Your task to perform on an android device: choose inbox layout in the gmail app Image 0: 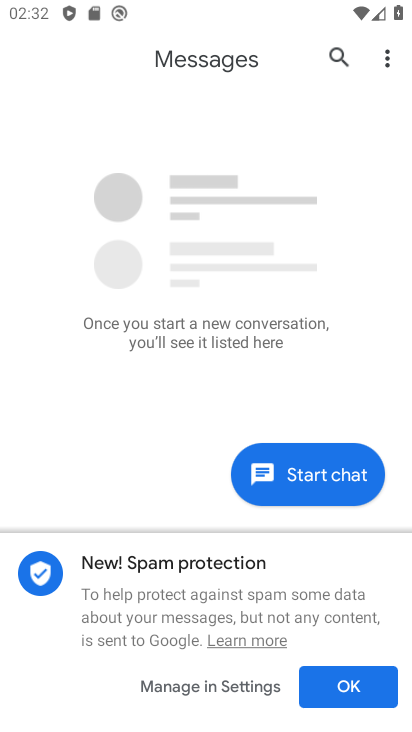
Step 0: press home button
Your task to perform on an android device: choose inbox layout in the gmail app Image 1: 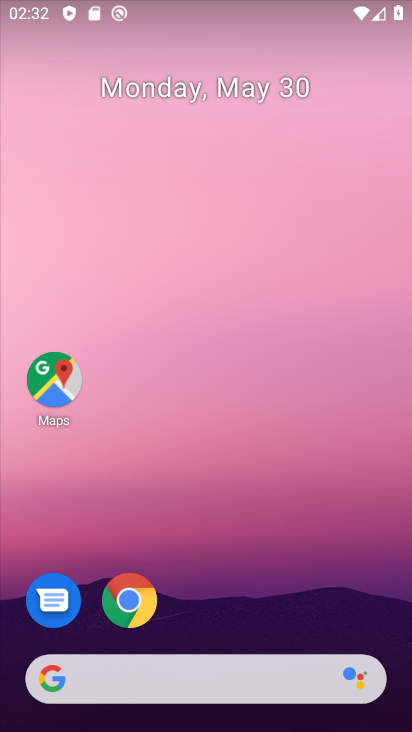
Step 1: drag from (219, 559) to (261, 58)
Your task to perform on an android device: choose inbox layout in the gmail app Image 2: 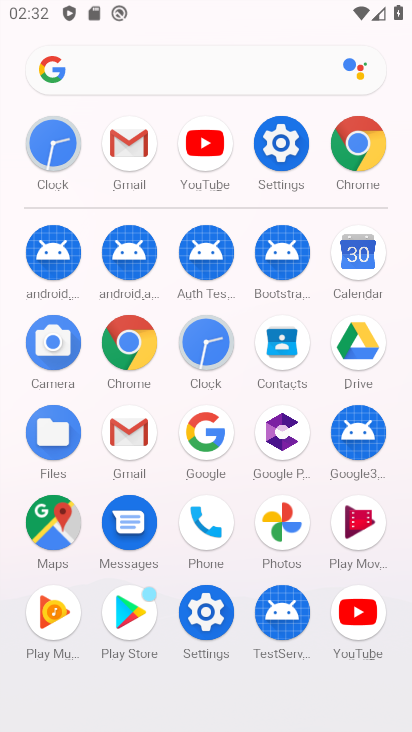
Step 2: click (129, 433)
Your task to perform on an android device: choose inbox layout in the gmail app Image 3: 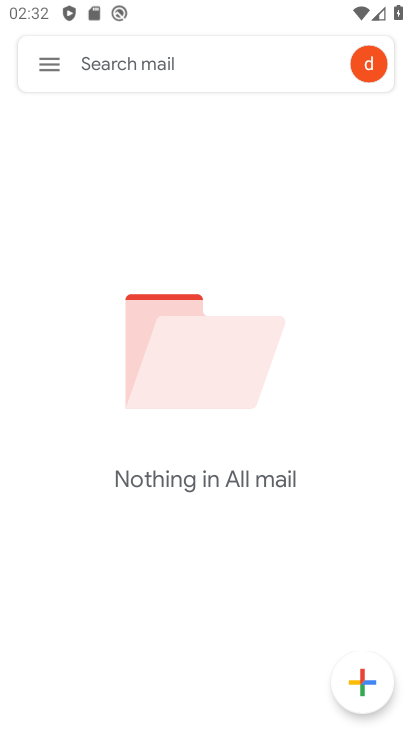
Step 3: click (50, 66)
Your task to perform on an android device: choose inbox layout in the gmail app Image 4: 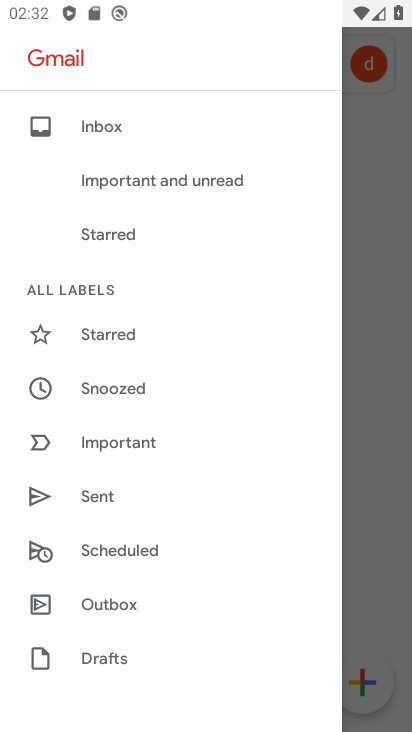
Step 4: drag from (153, 618) to (183, 265)
Your task to perform on an android device: choose inbox layout in the gmail app Image 5: 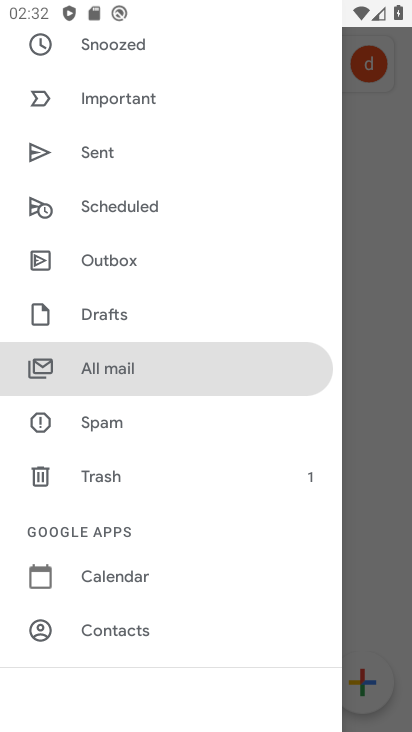
Step 5: drag from (199, 574) to (209, 207)
Your task to perform on an android device: choose inbox layout in the gmail app Image 6: 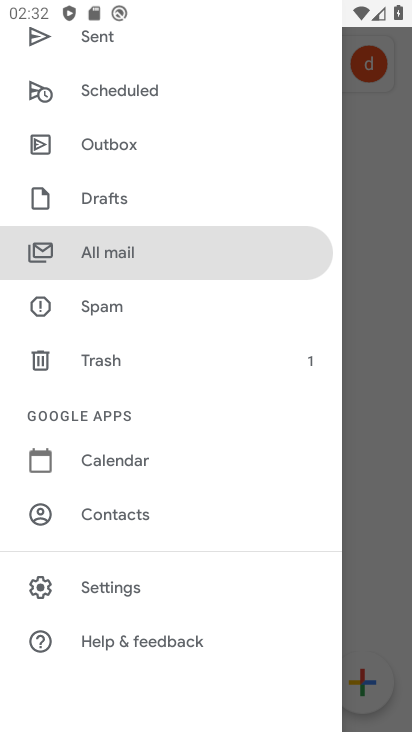
Step 6: click (118, 587)
Your task to perform on an android device: choose inbox layout in the gmail app Image 7: 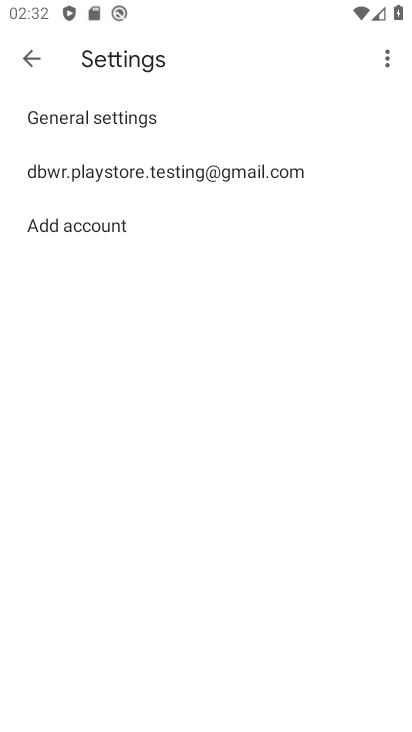
Step 7: click (226, 170)
Your task to perform on an android device: choose inbox layout in the gmail app Image 8: 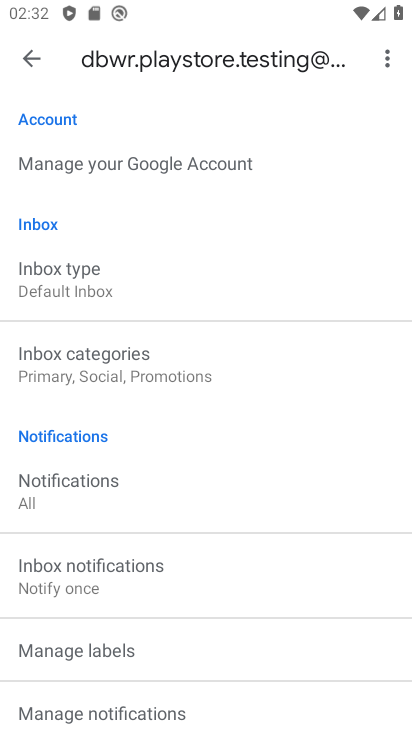
Step 8: click (70, 284)
Your task to perform on an android device: choose inbox layout in the gmail app Image 9: 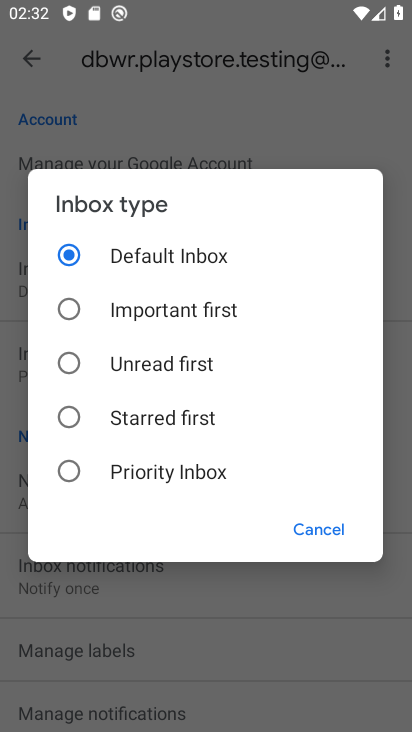
Step 9: click (70, 468)
Your task to perform on an android device: choose inbox layout in the gmail app Image 10: 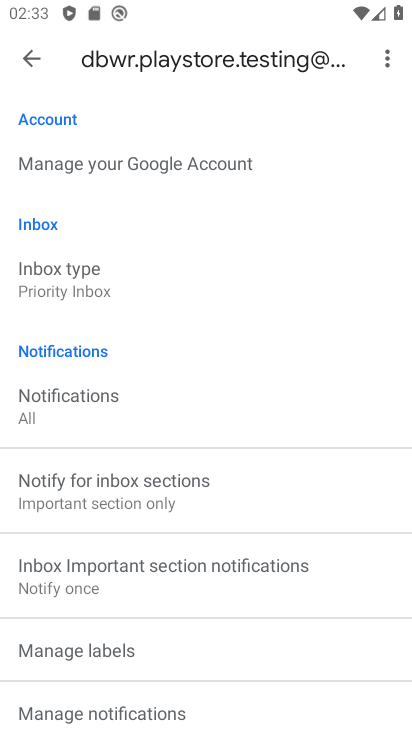
Step 10: task complete